Your task to perform on an android device: clear history in the chrome app Image 0: 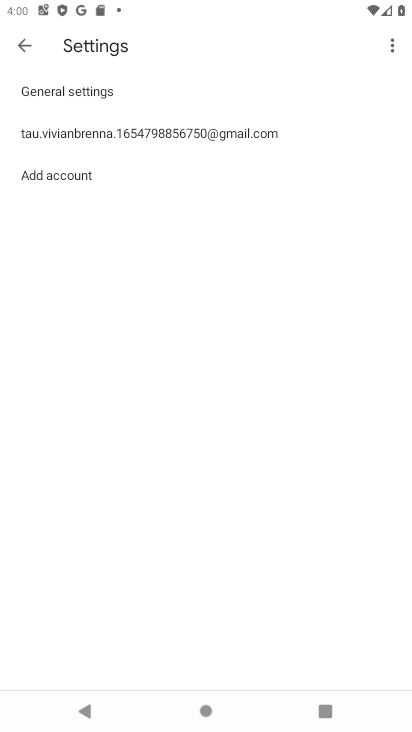
Step 0: press home button
Your task to perform on an android device: clear history in the chrome app Image 1: 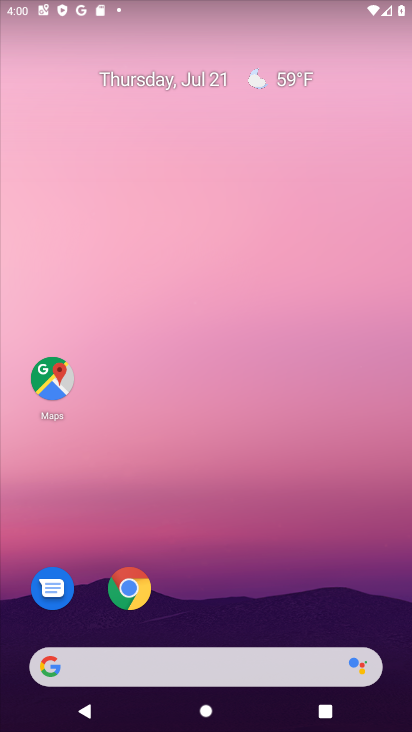
Step 1: click (130, 594)
Your task to perform on an android device: clear history in the chrome app Image 2: 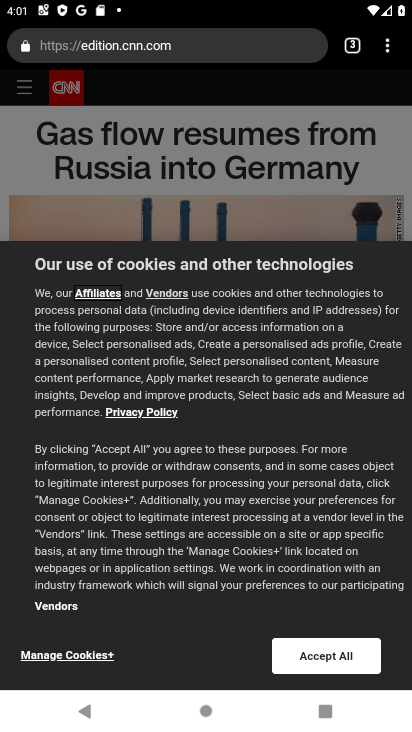
Step 2: click (390, 47)
Your task to perform on an android device: clear history in the chrome app Image 3: 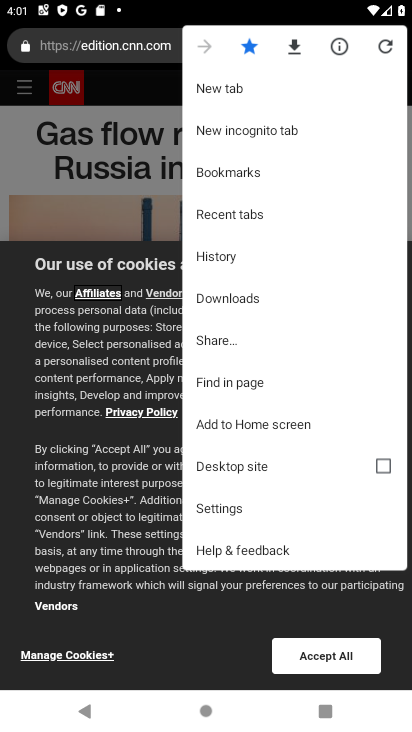
Step 3: click (209, 256)
Your task to perform on an android device: clear history in the chrome app Image 4: 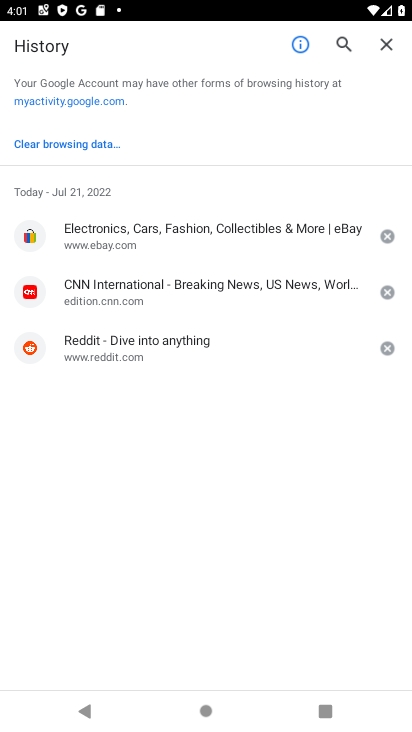
Step 4: click (58, 140)
Your task to perform on an android device: clear history in the chrome app Image 5: 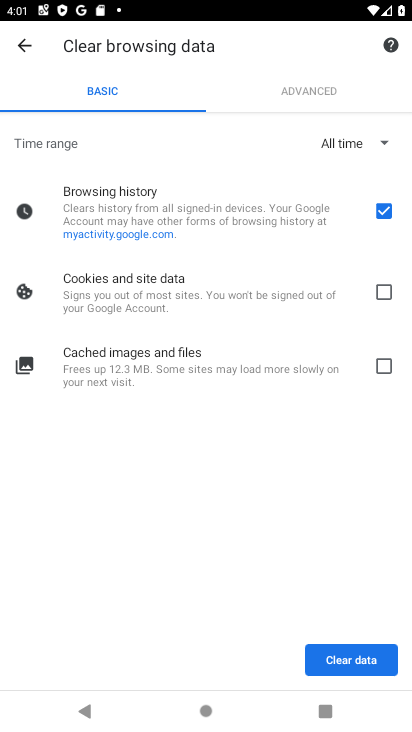
Step 5: click (360, 658)
Your task to perform on an android device: clear history in the chrome app Image 6: 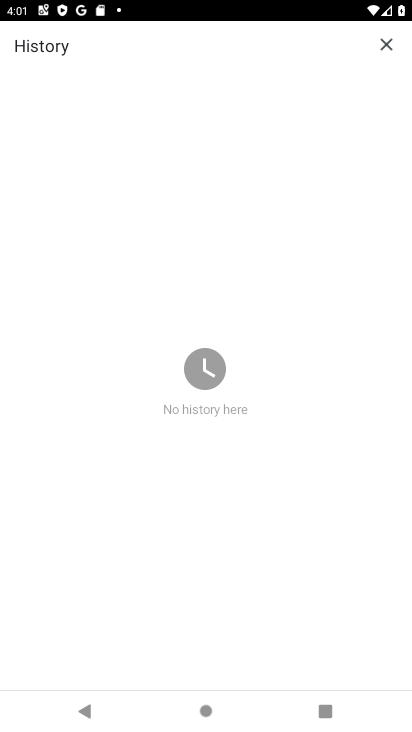
Step 6: task complete